Your task to perform on an android device: toggle wifi Image 0: 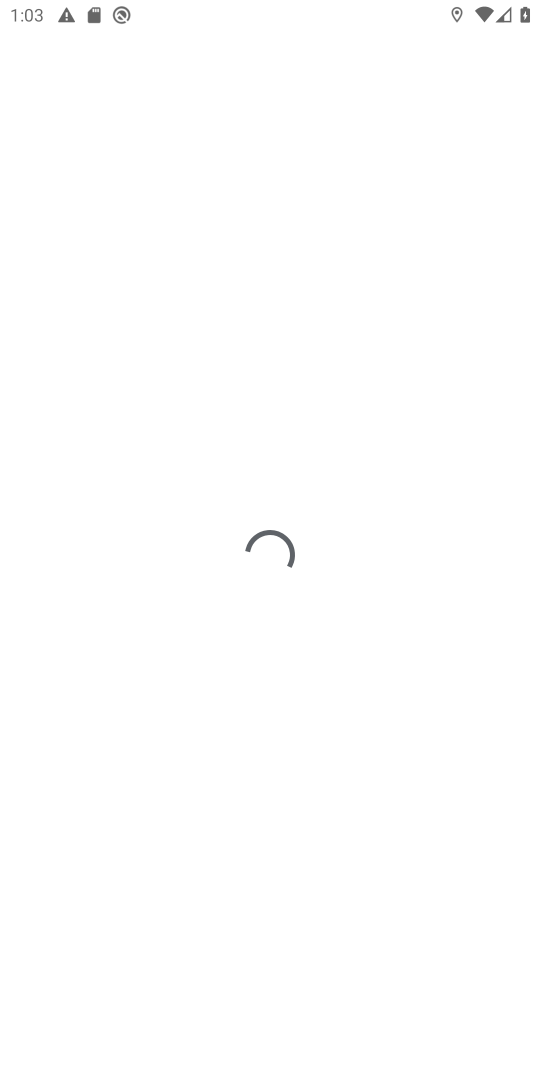
Step 0: press home button
Your task to perform on an android device: toggle wifi Image 1: 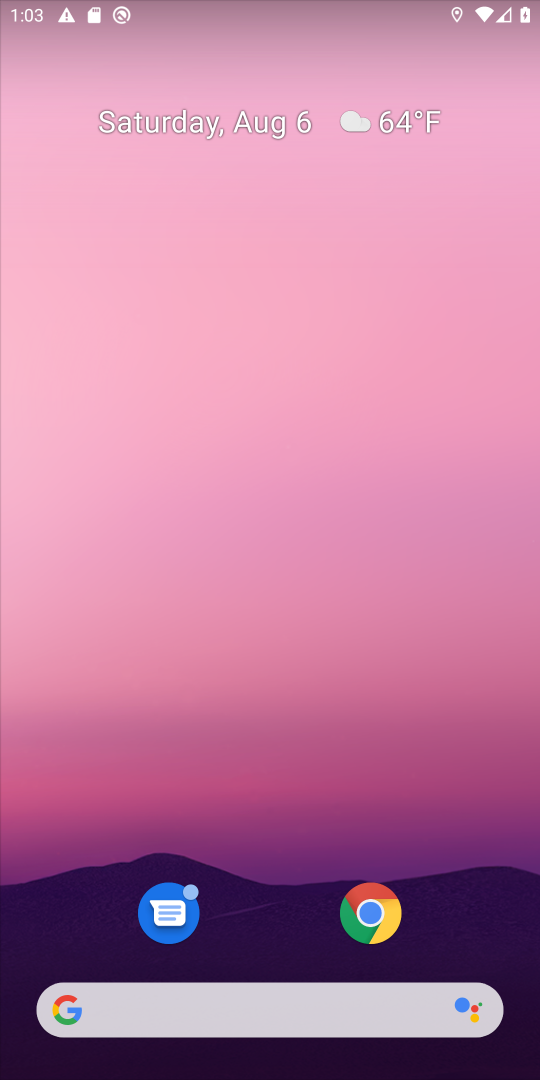
Step 1: drag from (278, 838) to (311, 123)
Your task to perform on an android device: toggle wifi Image 2: 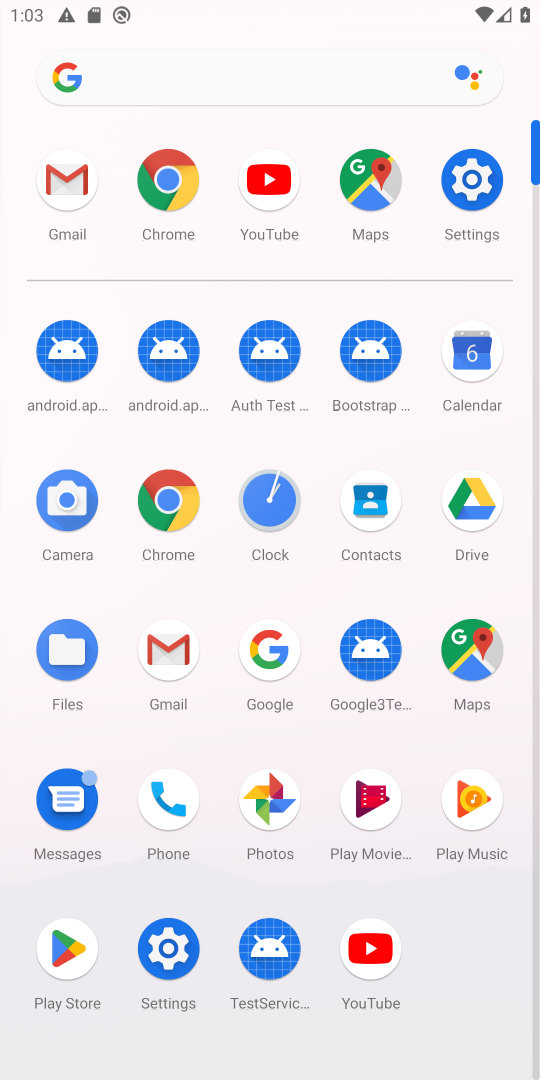
Step 2: click (470, 180)
Your task to perform on an android device: toggle wifi Image 3: 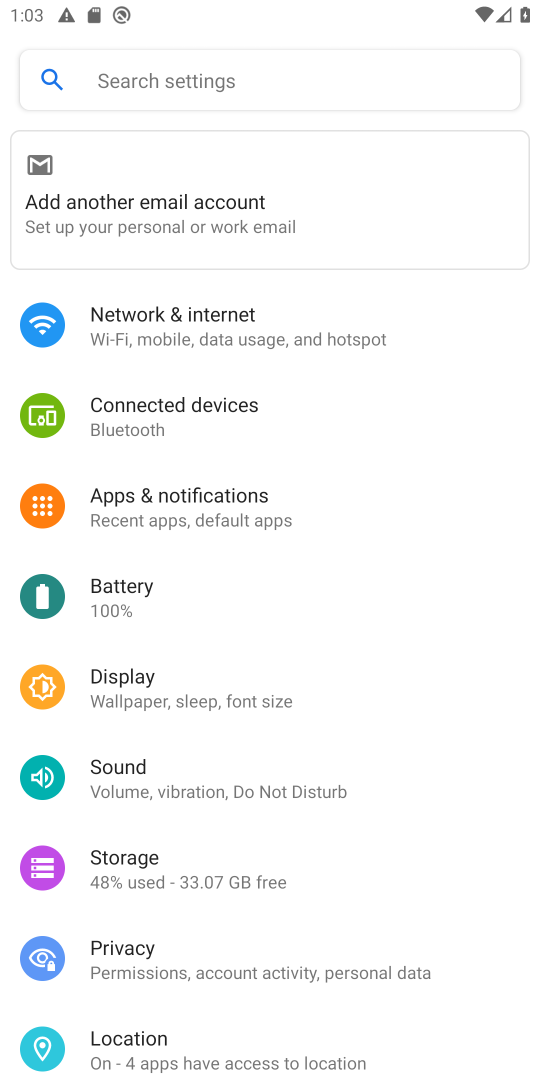
Step 3: drag from (429, 705) to (438, 488)
Your task to perform on an android device: toggle wifi Image 4: 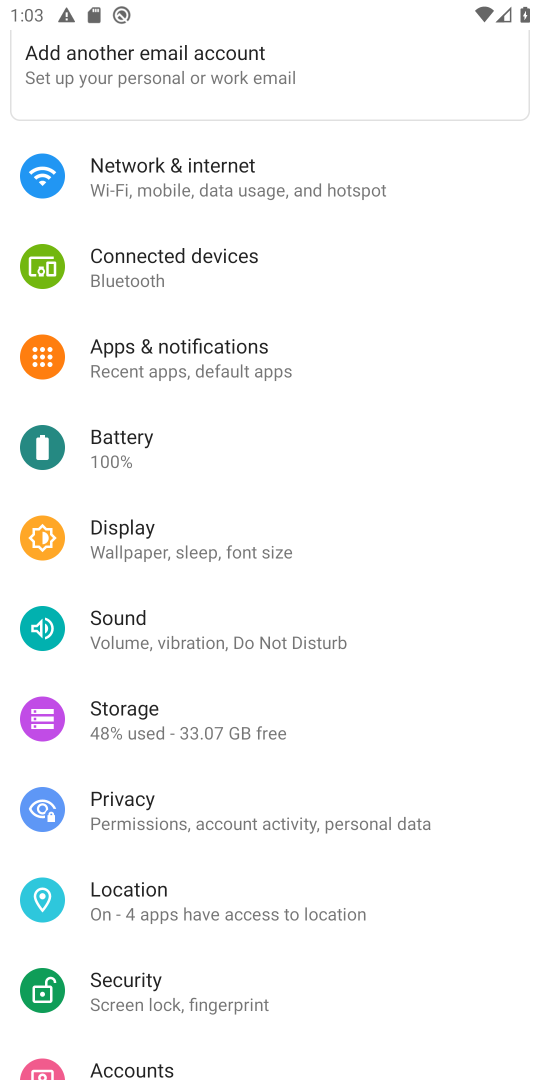
Step 4: drag from (440, 747) to (446, 512)
Your task to perform on an android device: toggle wifi Image 5: 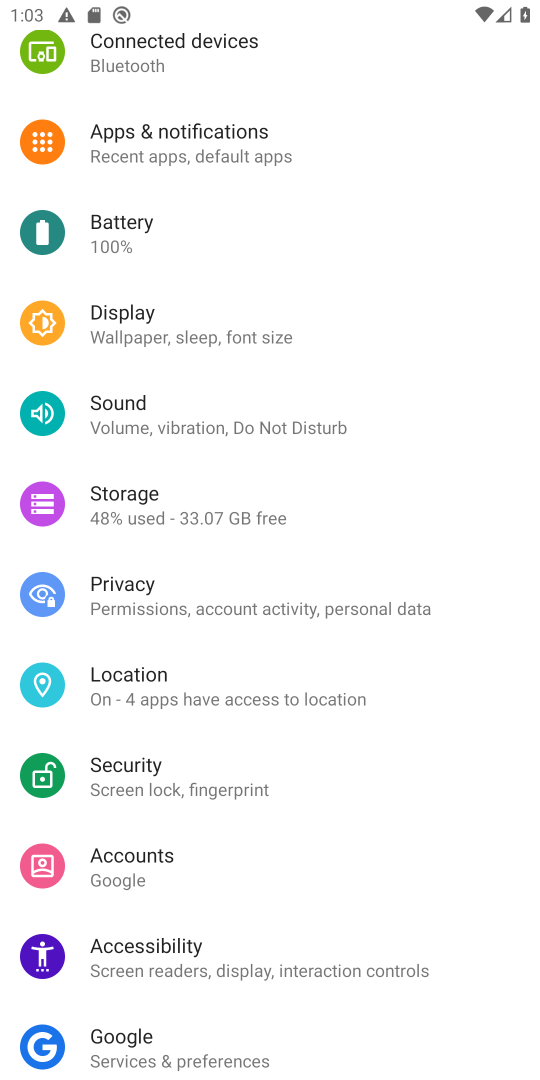
Step 5: drag from (416, 852) to (433, 651)
Your task to perform on an android device: toggle wifi Image 6: 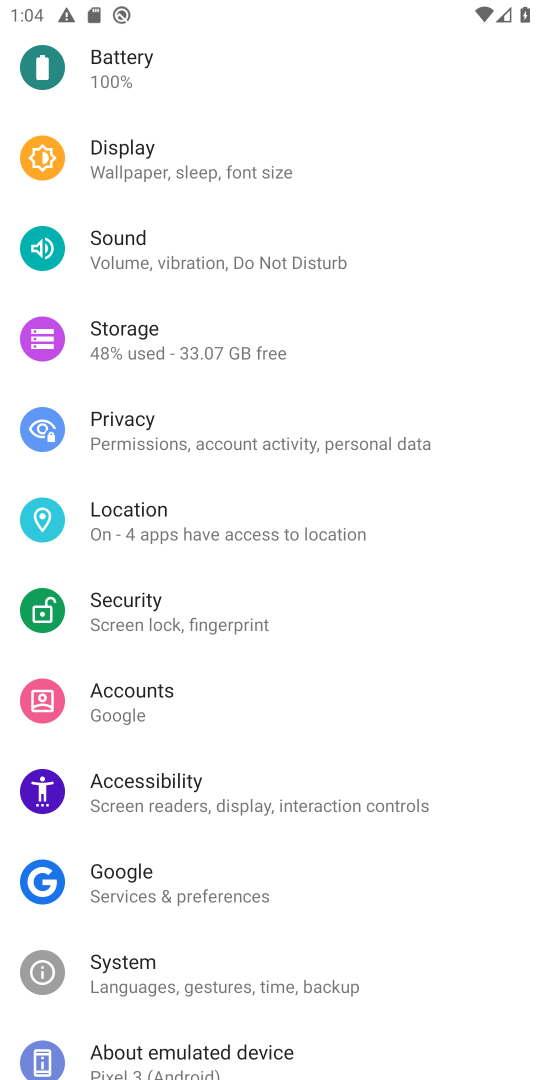
Step 6: drag from (440, 903) to (448, 669)
Your task to perform on an android device: toggle wifi Image 7: 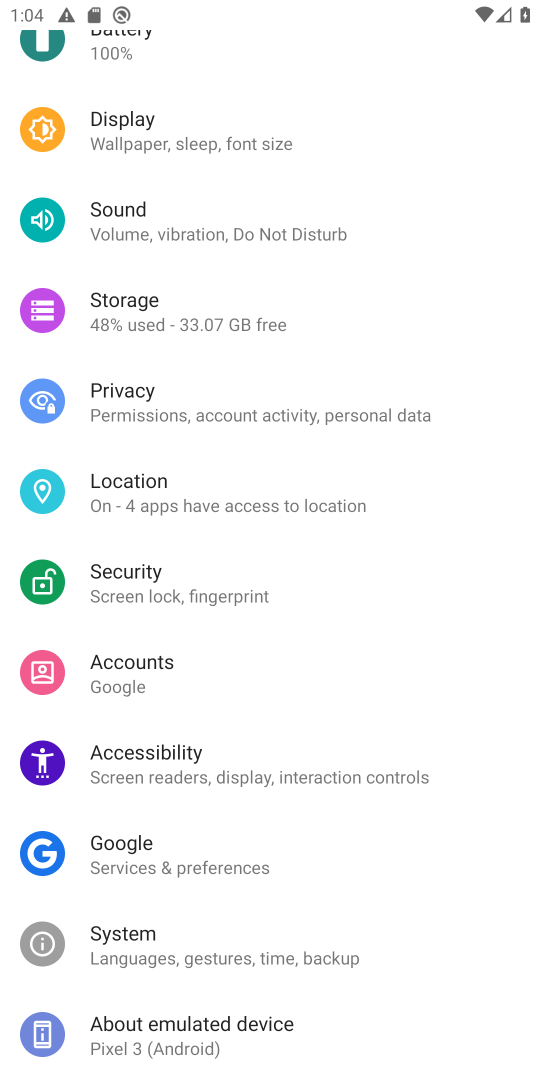
Step 7: drag from (470, 522) to (473, 685)
Your task to perform on an android device: toggle wifi Image 8: 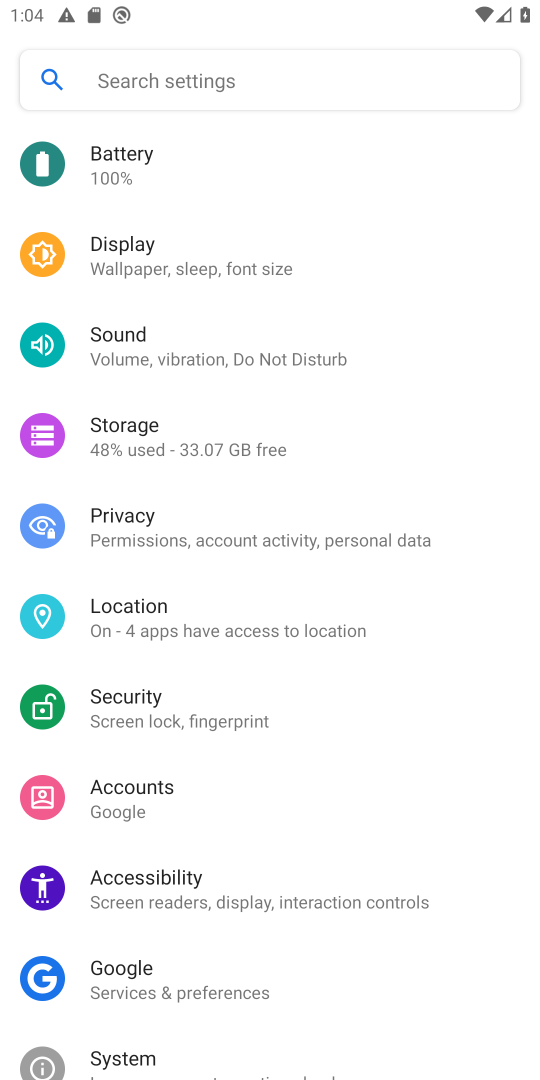
Step 8: drag from (472, 428) to (478, 618)
Your task to perform on an android device: toggle wifi Image 9: 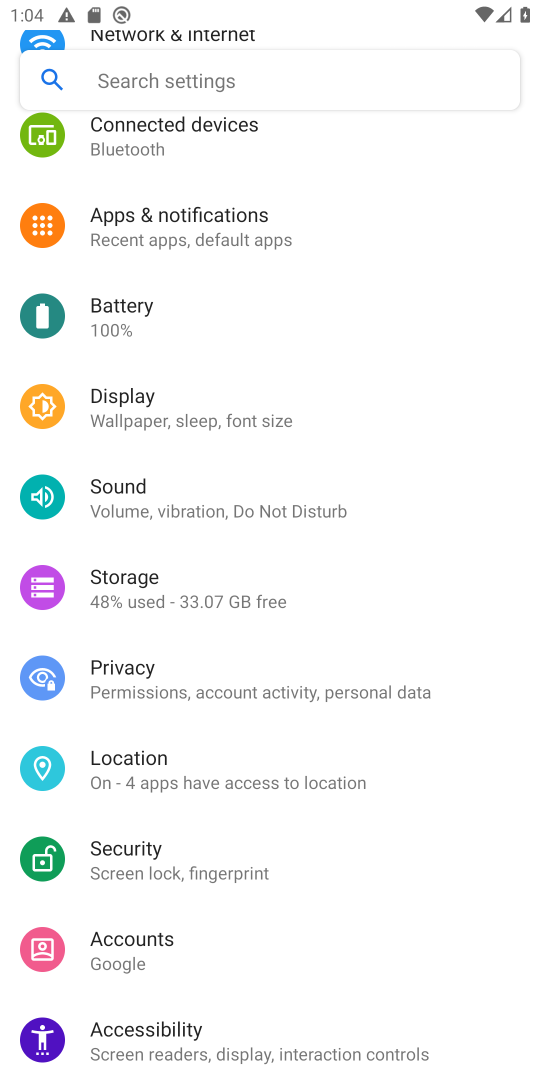
Step 9: drag from (478, 313) to (493, 579)
Your task to perform on an android device: toggle wifi Image 10: 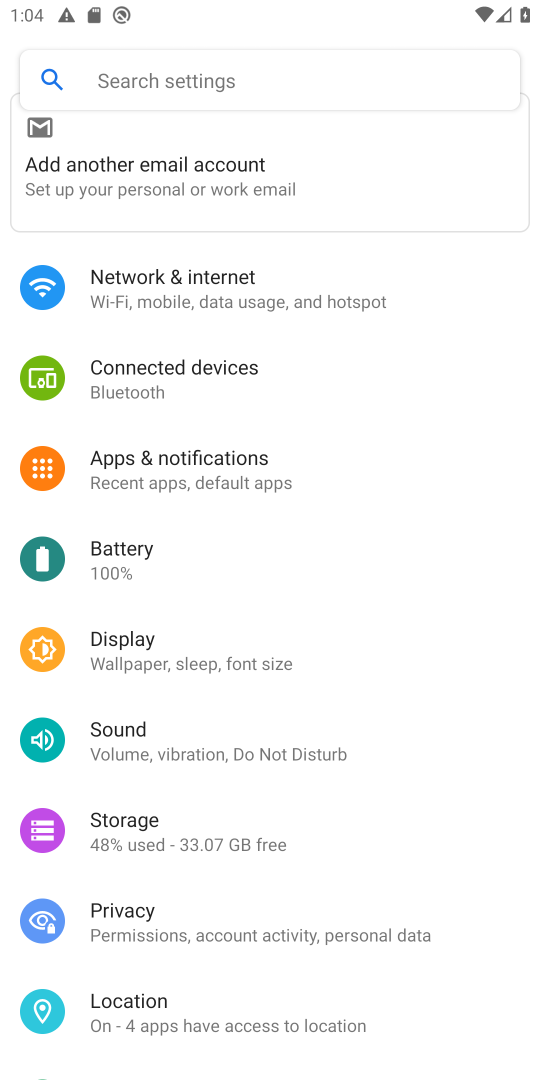
Step 10: drag from (455, 354) to (464, 561)
Your task to perform on an android device: toggle wifi Image 11: 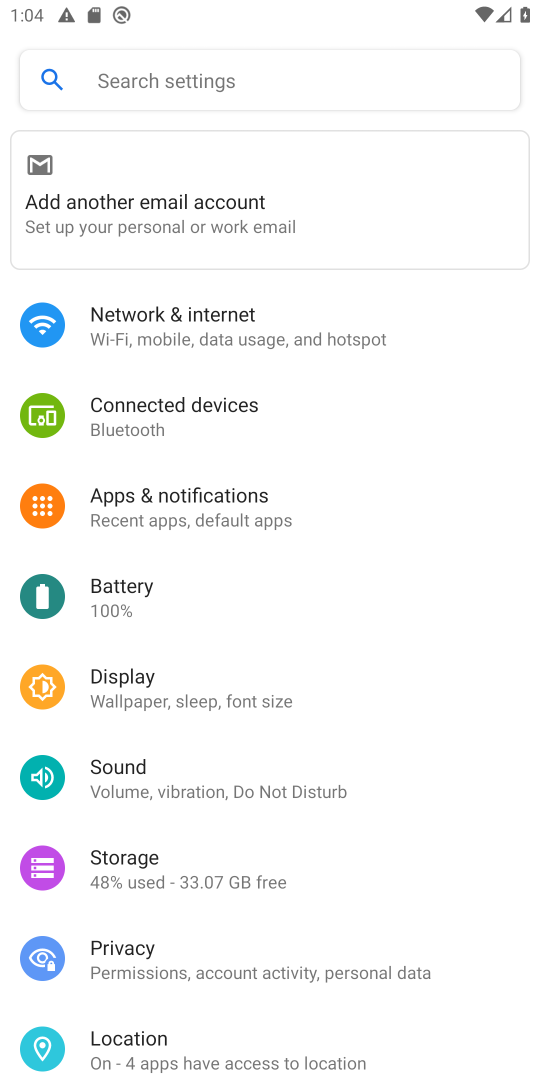
Step 11: click (356, 315)
Your task to perform on an android device: toggle wifi Image 12: 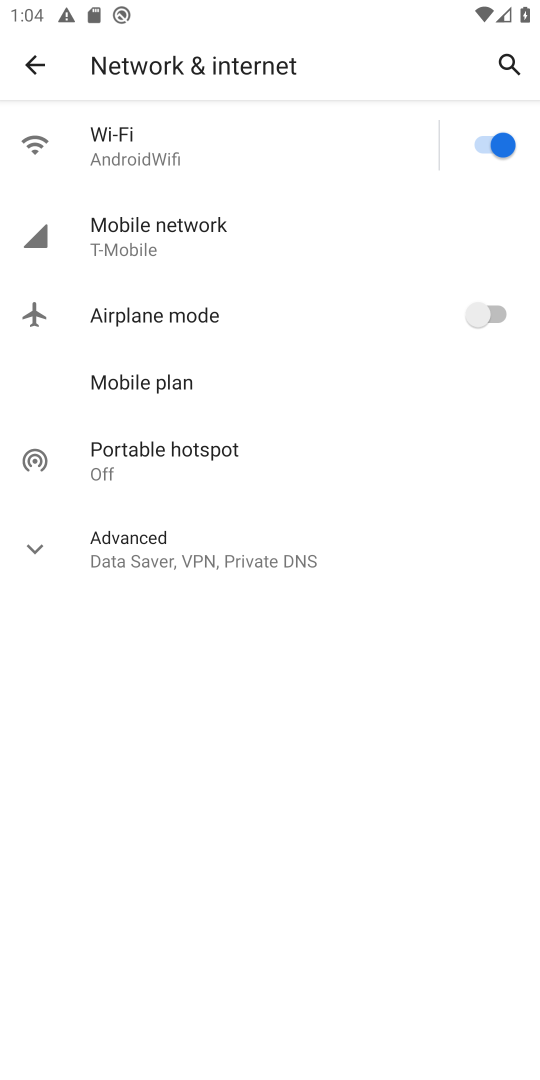
Step 12: click (502, 150)
Your task to perform on an android device: toggle wifi Image 13: 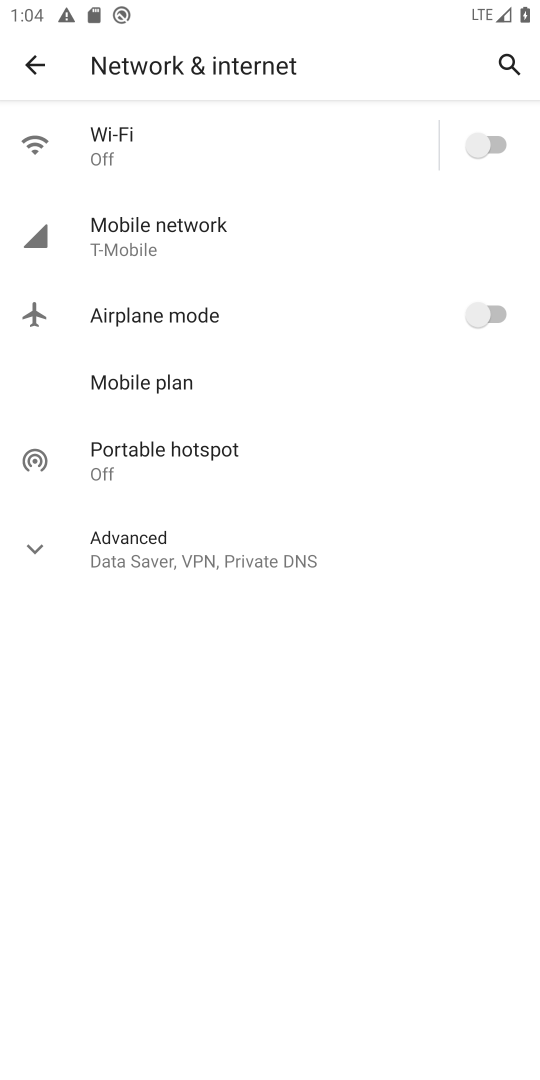
Step 13: task complete